Your task to perform on an android device: turn off sleep mode Image 0: 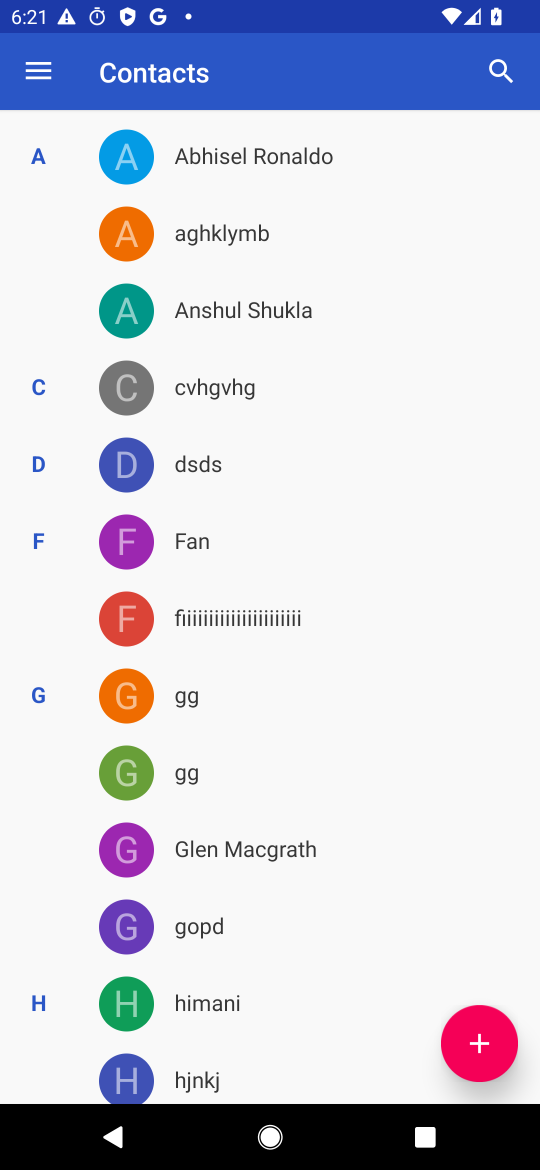
Step 0: press home button
Your task to perform on an android device: turn off sleep mode Image 1: 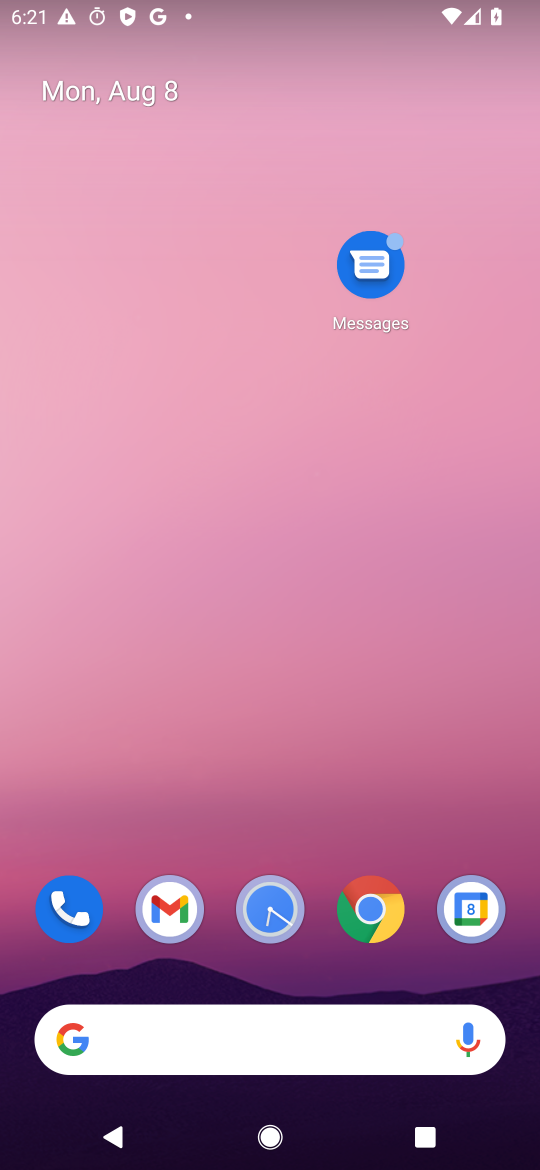
Step 1: drag from (230, 1052) to (491, 123)
Your task to perform on an android device: turn off sleep mode Image 2: 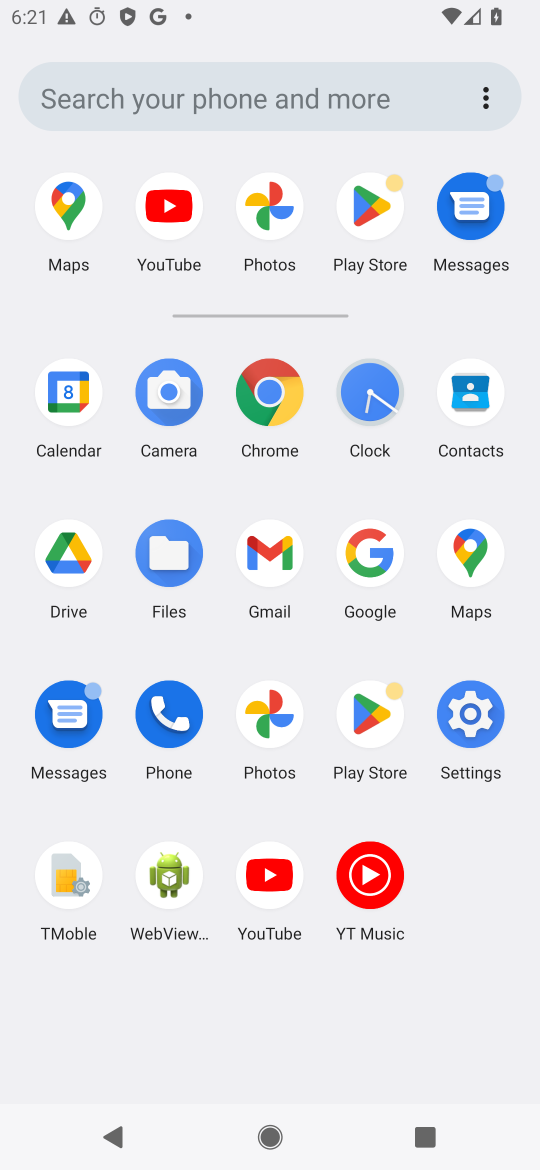
Step 2: click (466, 724)
Your task to perform on an android device: turn off sleep mode Image 3: 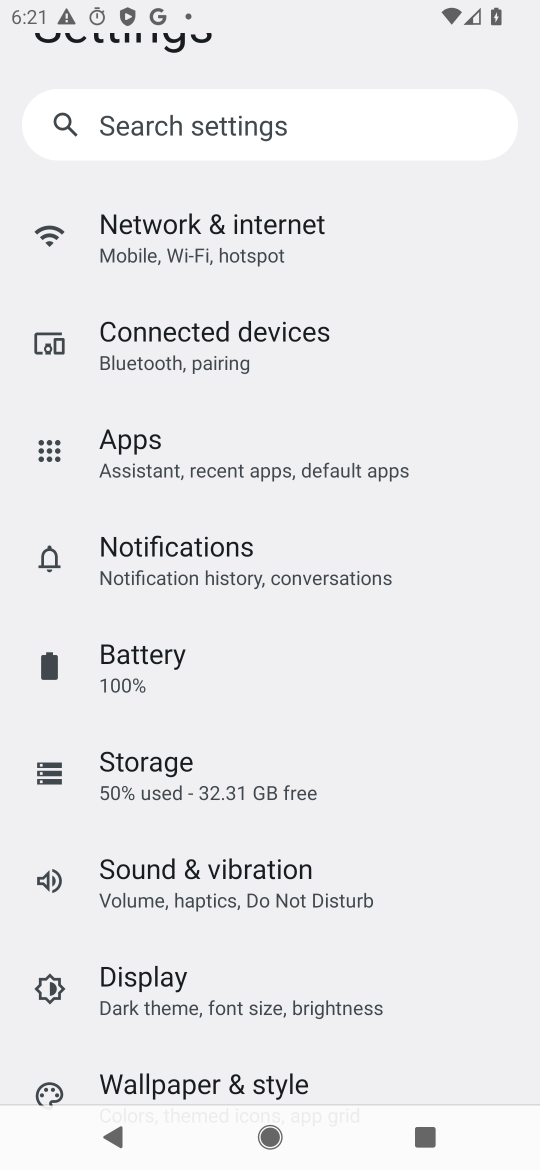
Step 3: click (224, 1000)
Your task to perform on an android device: turn off sleep mode Image 4: 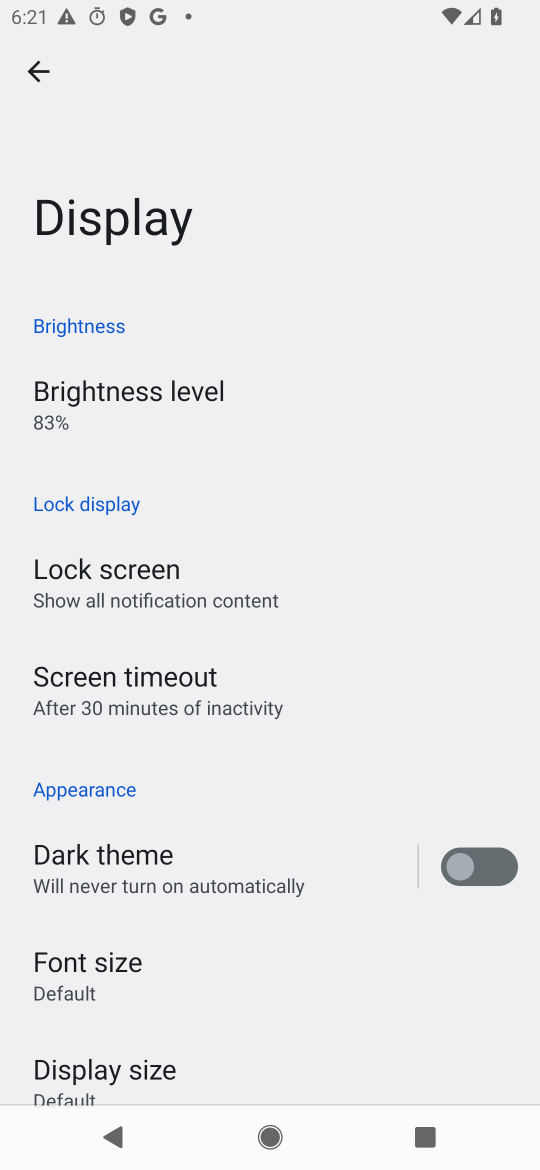
Step 4: task complete